Your task to perform on an android device: What is the speed of light? Image 0: 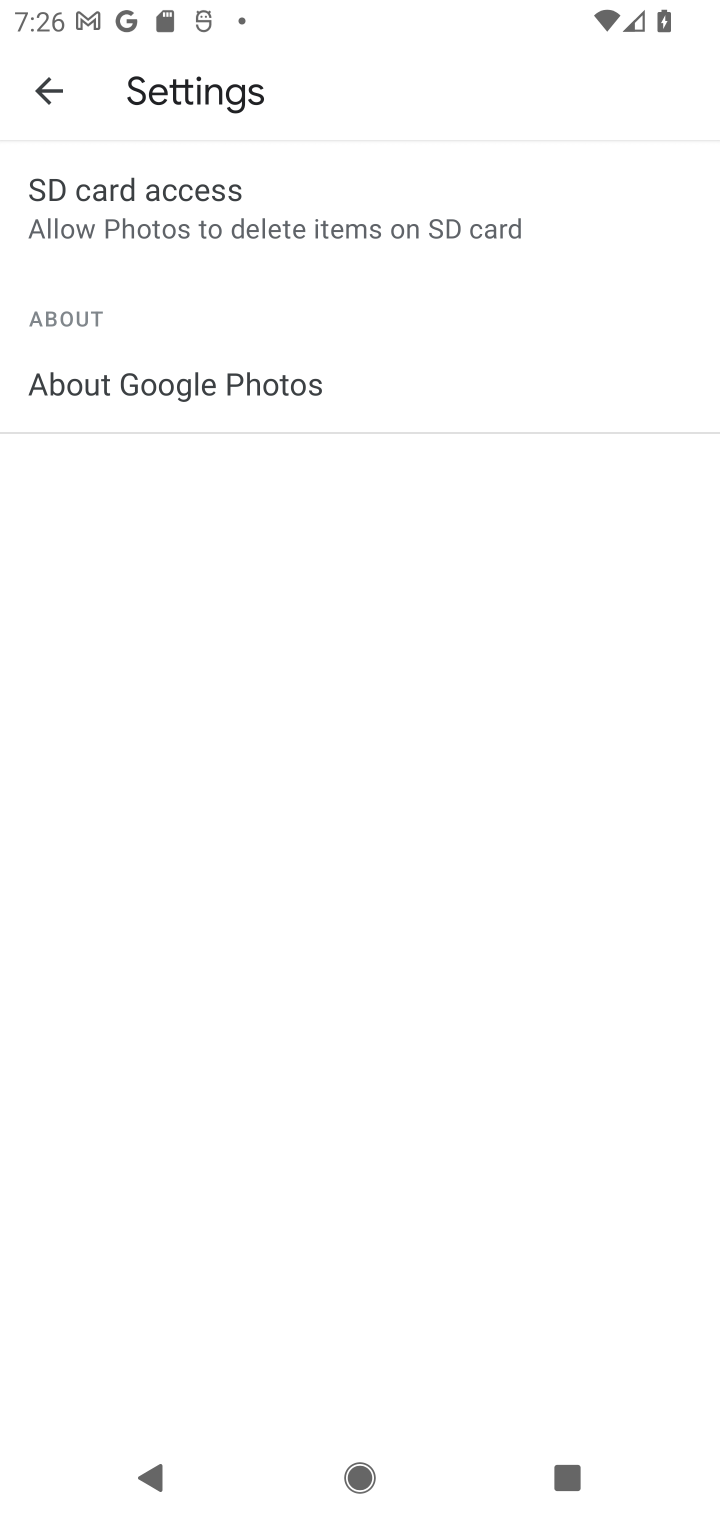
Step 0: press home button
Your task to perform on an android device: What is the speed of light? Image 1: 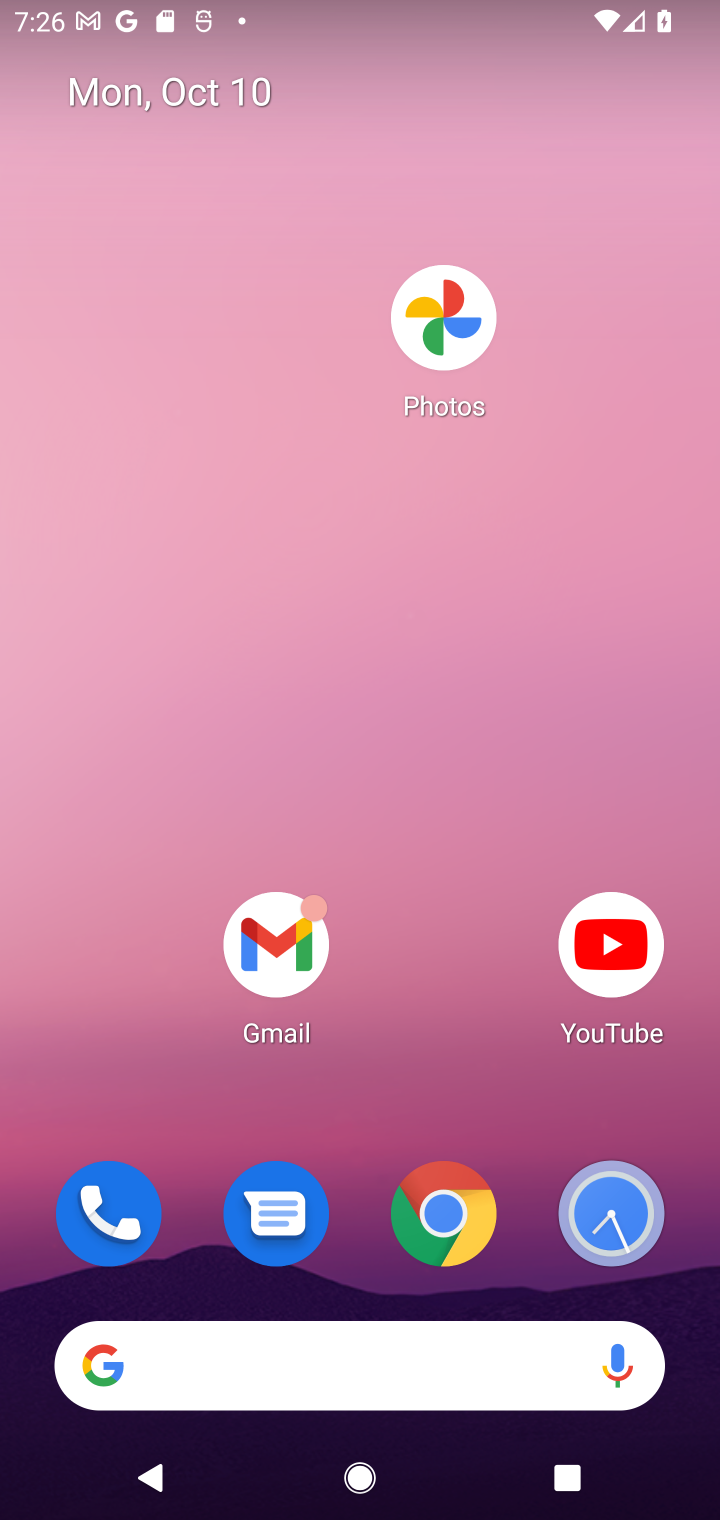
Step 1: drag from (378, 1096) to (397, 625)
Your task to perform on an android device: What is the speed of light? Image 2: 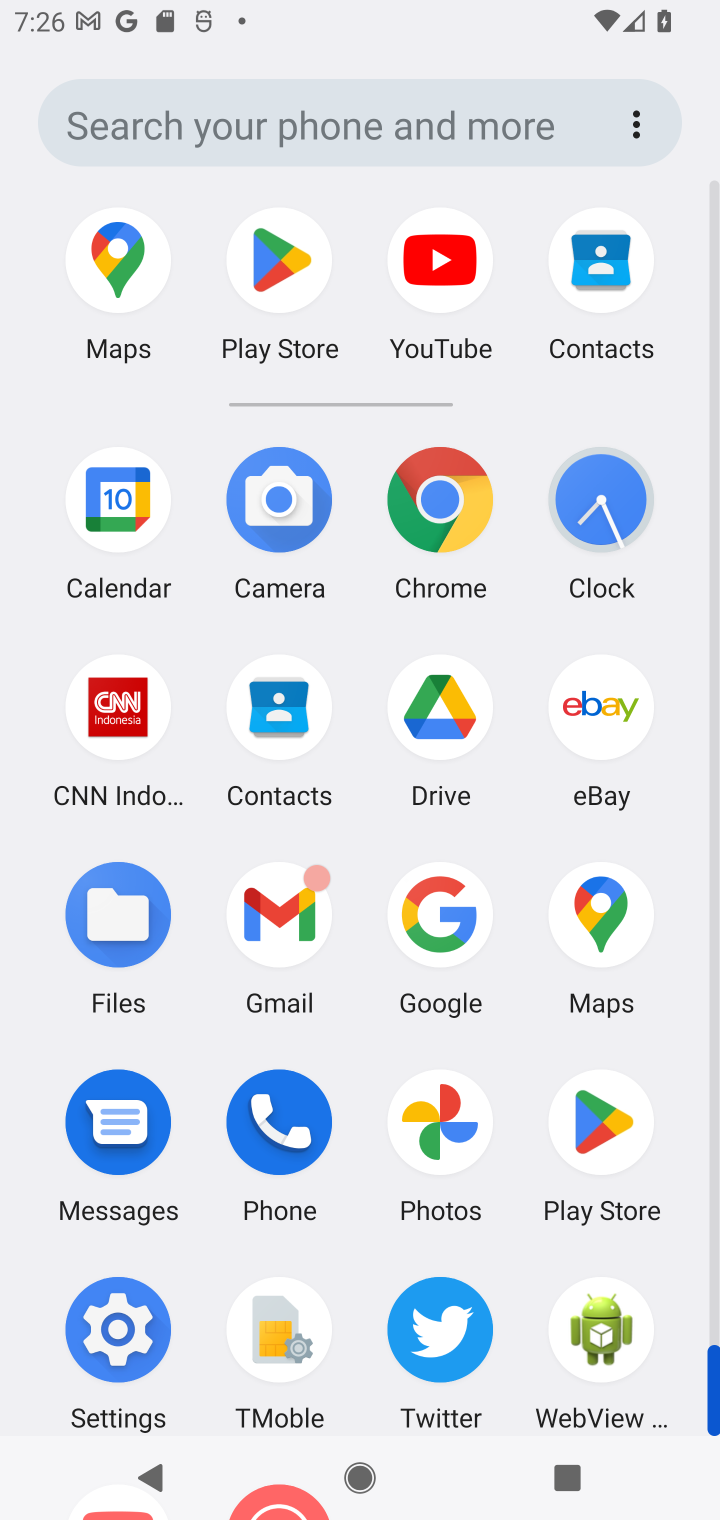
Step 2: drag from (321, 747) to (337, 1212)
Your task to perform on an android device: What is the speed of light? Image 3: 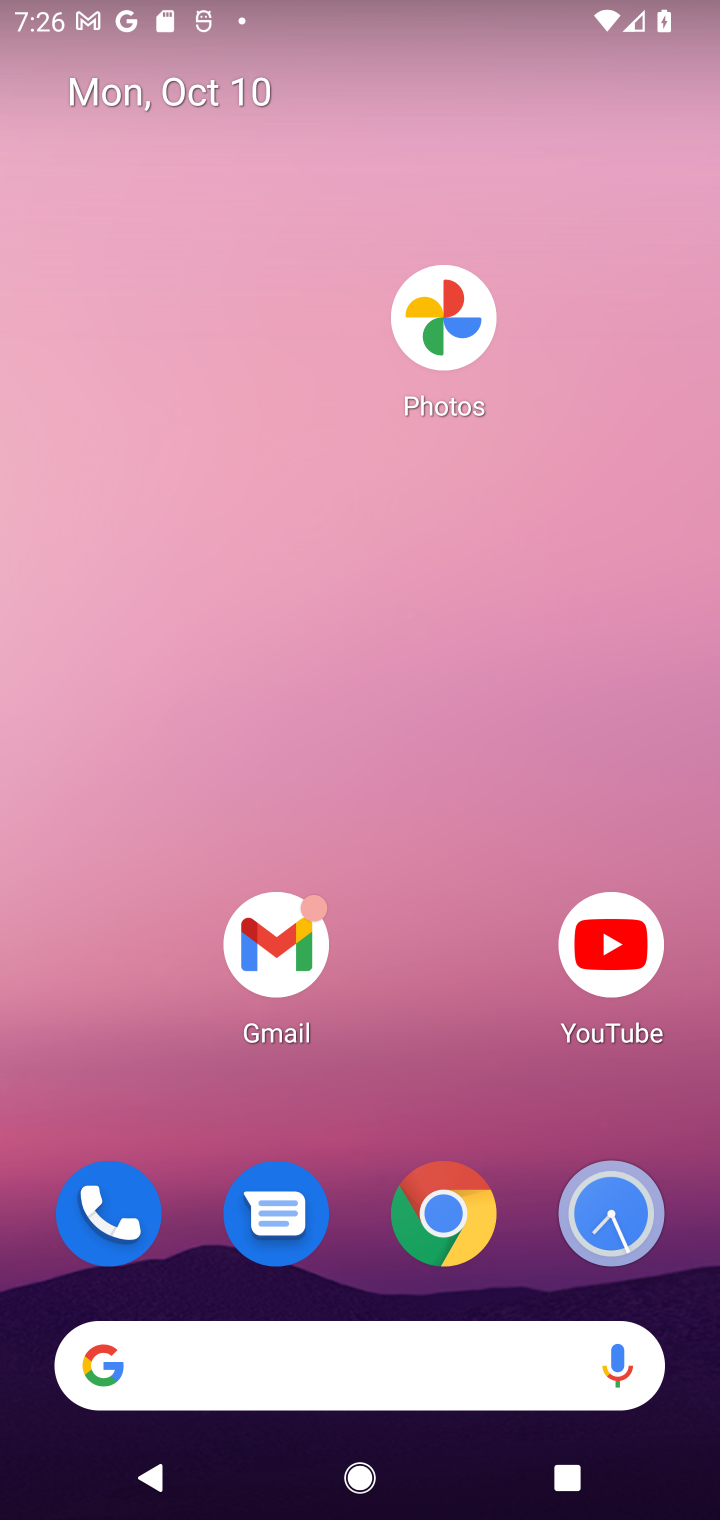
Step 3: click (384, 1348)
Your task to perform on an android device: What is the speed of light? Image 4: 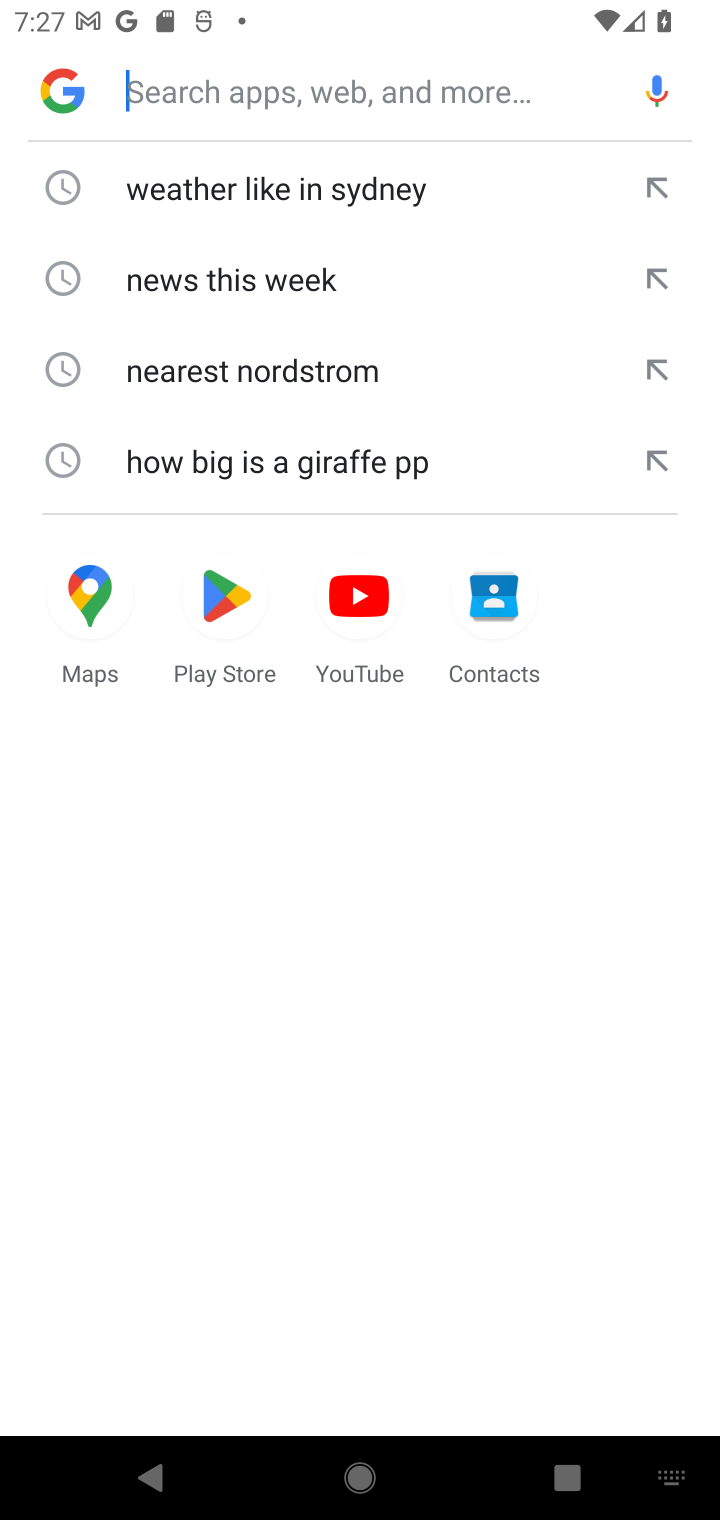
Step 4: type "speed of light?"
Your task to perform on an android device: What is the speed of light? Image 5: 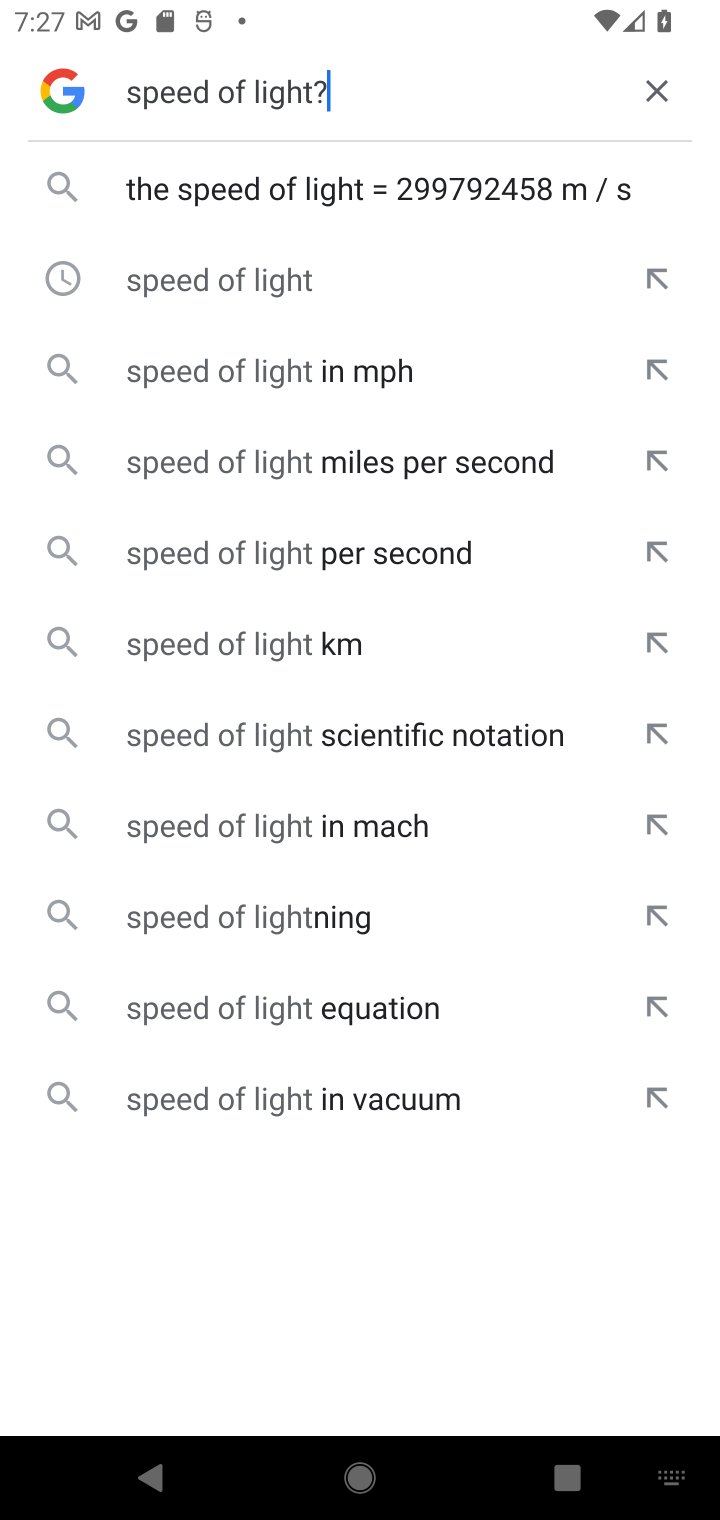
Step 5: type ""
Your task to perform on an android device: What is the speed of light? Image 6: 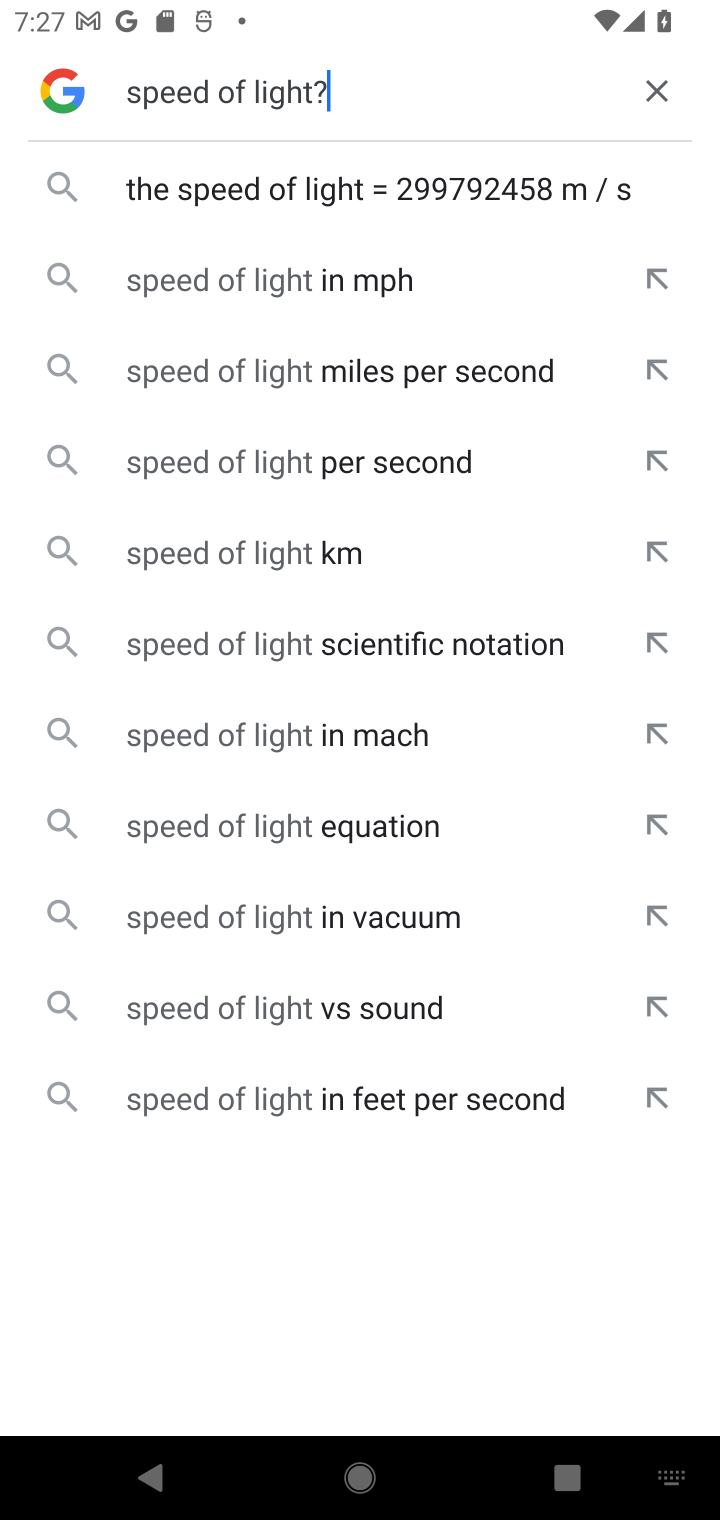
Step 6: click (448, 260)
Your task to perform on an android device: What is the speed of light? Image 7: 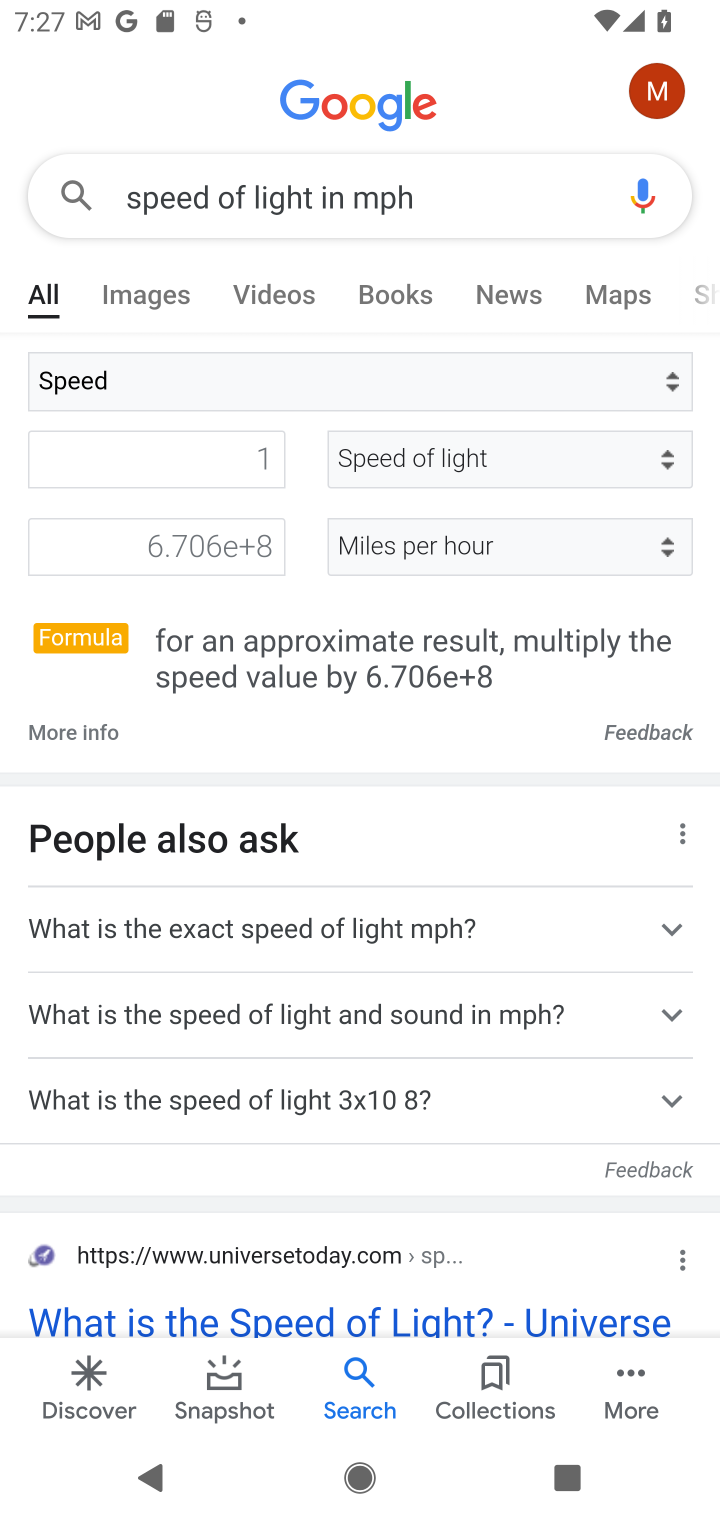
Step 7: task complete